Your task to perform on an android device: Go to Android settings Image 0: 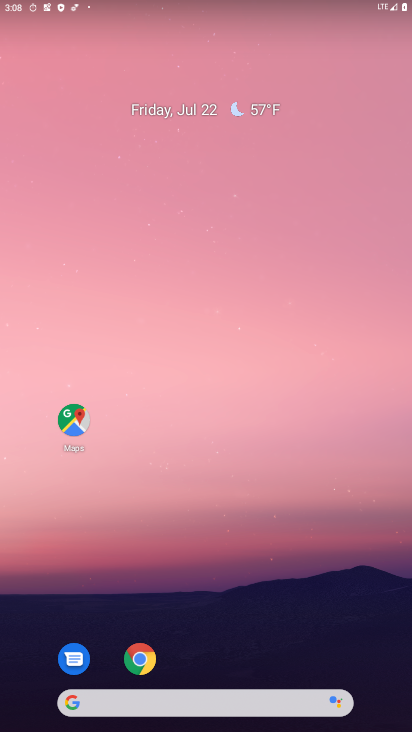
Step 0: drag from (280, 635) to (222, 22)
Your task to perform on an android device: Go to Android settings Image 1: 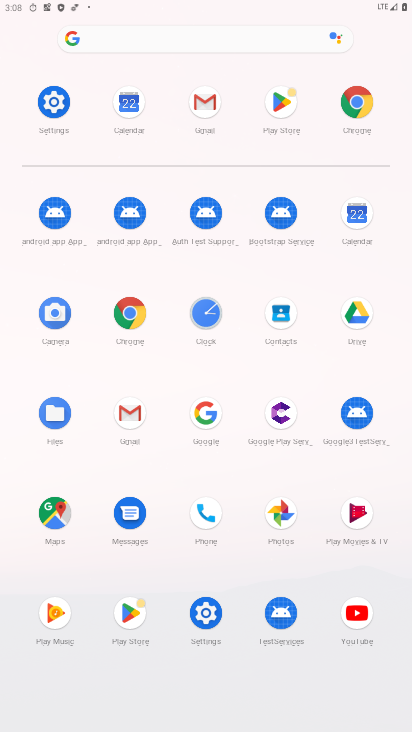
Step 1: click (52, 103)
Your task to perform on an android device: Go to Android settings Image 2: 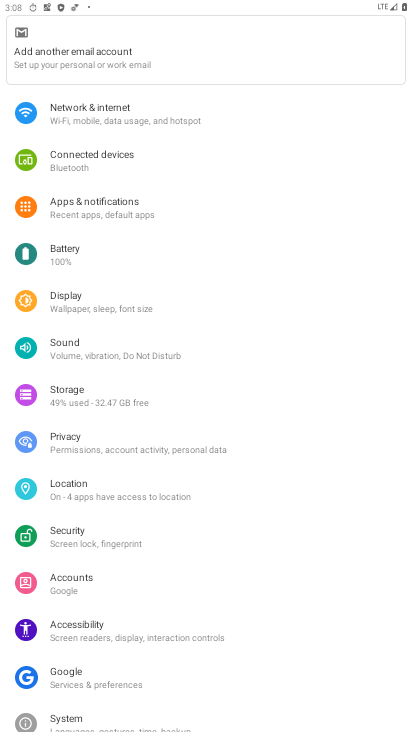
Step 2: click (63, 717)
Your task to perform on an android device: Go to Android settings Image 3: 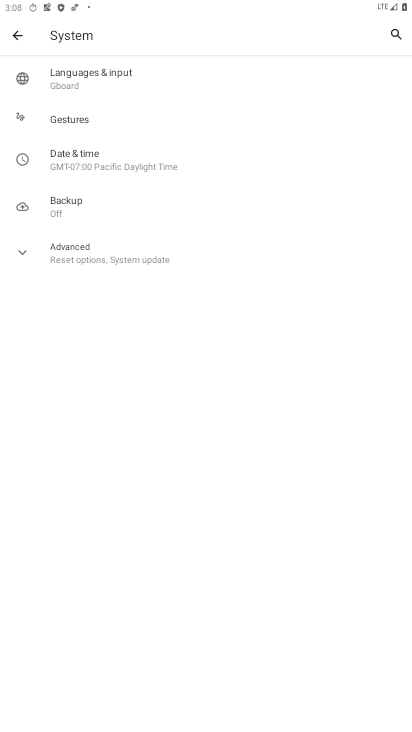
Step 3: task complete